Your task to perform on an android device: Open Youtube and go to the subscriptions tab Image 0: 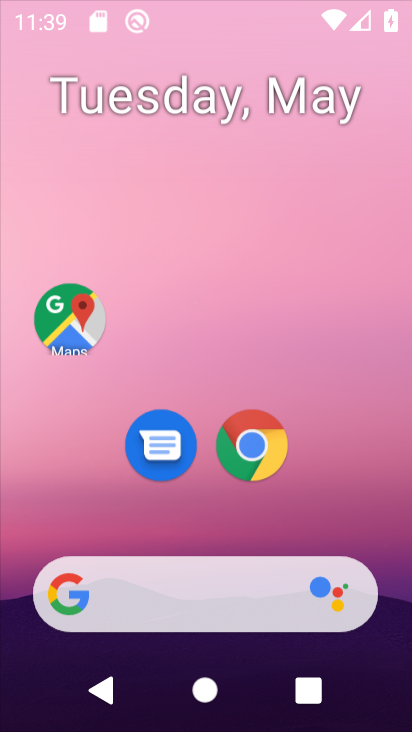
Step 0: press home button
Your task to perform on an android device: Open Youtube and go to the subscriptions tab Image 1: 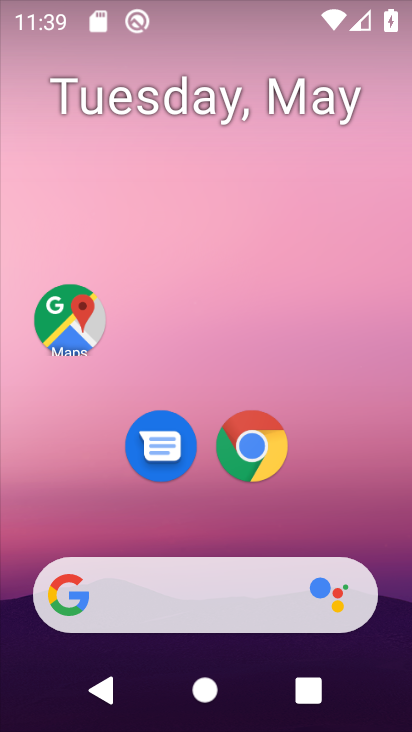
Step 1: drag from (359, 525) to (334, 69)
Your task to perform on an android device: Open Youtube and go to the subscriptions tab Image 2: 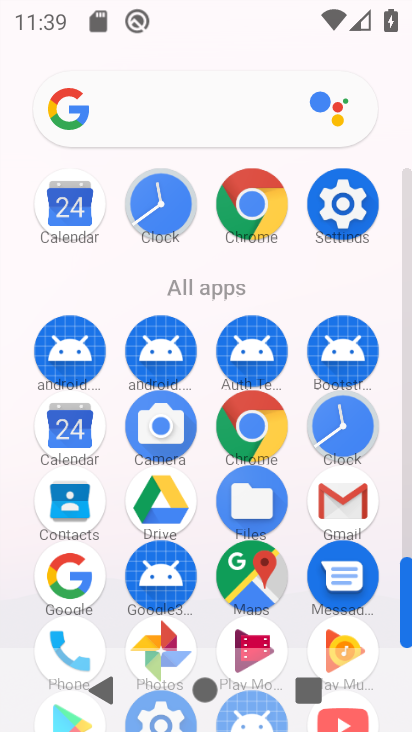
Step 2: drag from (404, 638) to (362, 336)
Your task to perform on an android device: Open Youtube and go to the subscriptions tab Image 3: 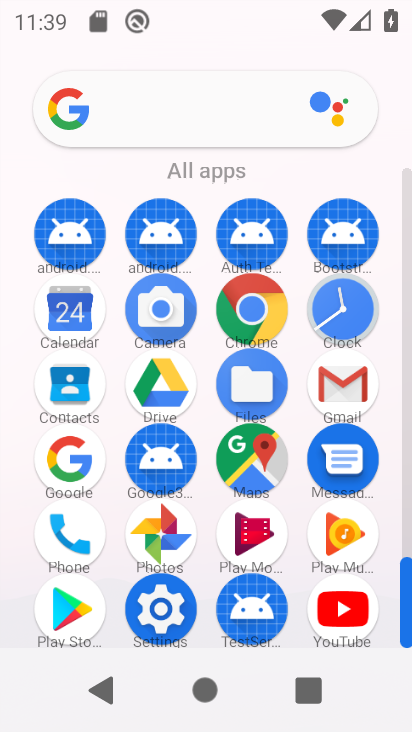
Step 3: click (358, 619)
Your task to perform on an android device: Open Youtube and go to the subscriptions tab Image 4: 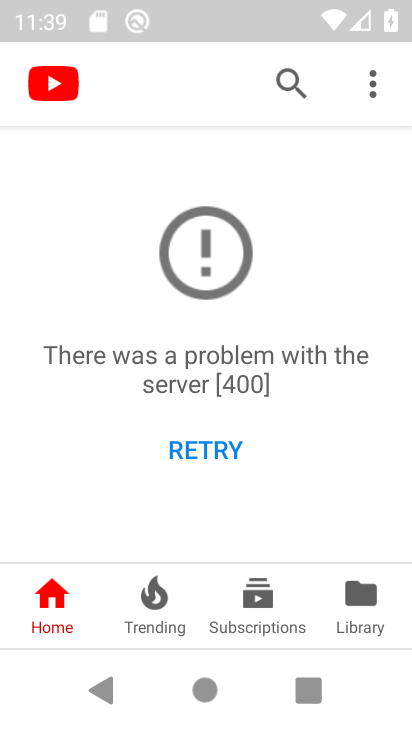
Step 4: click (245, 608)
Your task to perform on an android device: Open Youtube and go to the subscriptions tab Image 5: 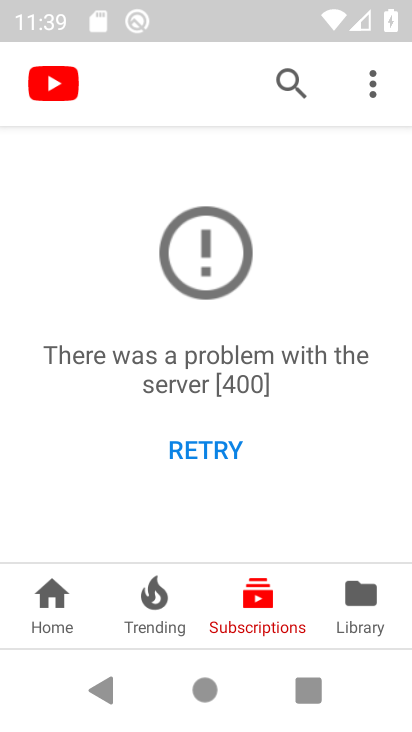
Step 5: task complete